Your task to perform on an android device: Play the last video I watched on Youtube Image 0: 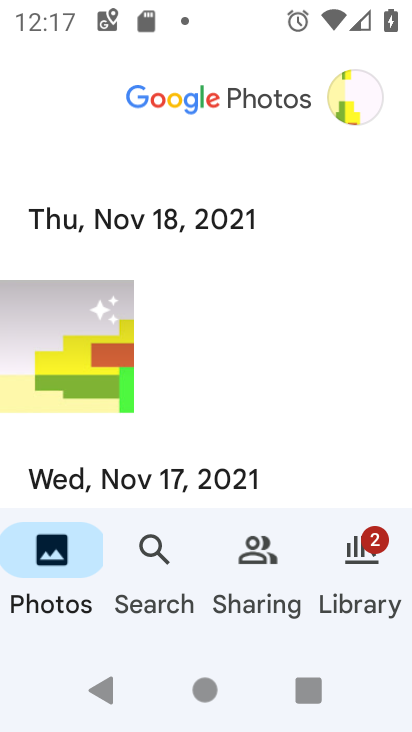
Step 0: press home button
Your task to perform on an android device: Play the last video I watched on Youtube Image 1: 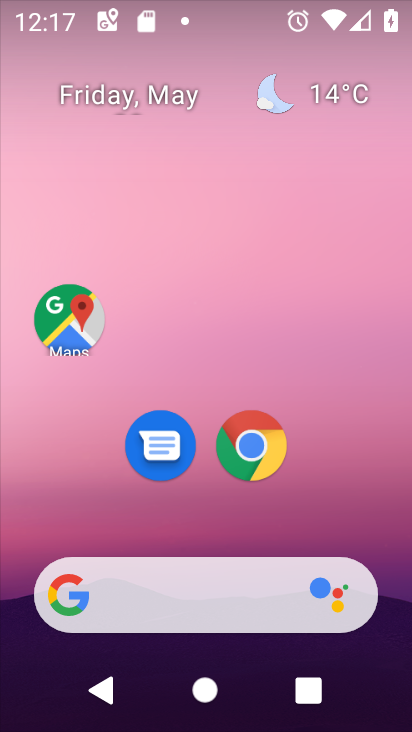
Step 1: drag from (256, 521) to (236, 222)
Your task to perform on an android device: Play the last video I watched on Youtube Image 2: 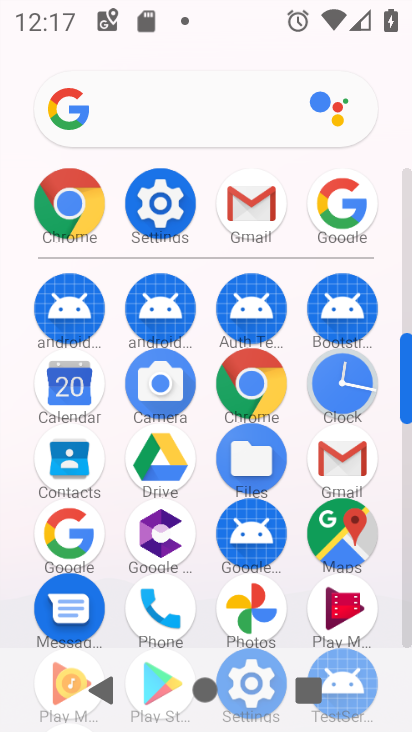
Step 2: drag from (219, 257) to (202, 102)
Your task to perform on an android device: Play the last video I watched on Youtube Image 3: 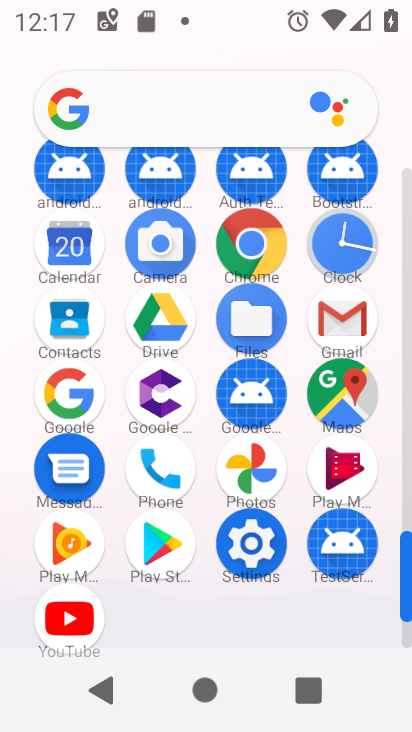
Step 3: click (82, 609)
Your task to perform on an android device: Play the last video I watched on Youtube Image 4: 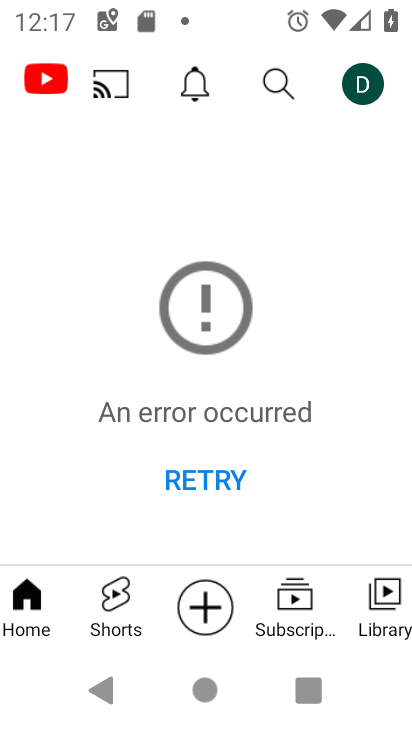
Step 4: click (211, 494)
Your task to perform on an android device: Play the last video I watched on Youtube Image 5: 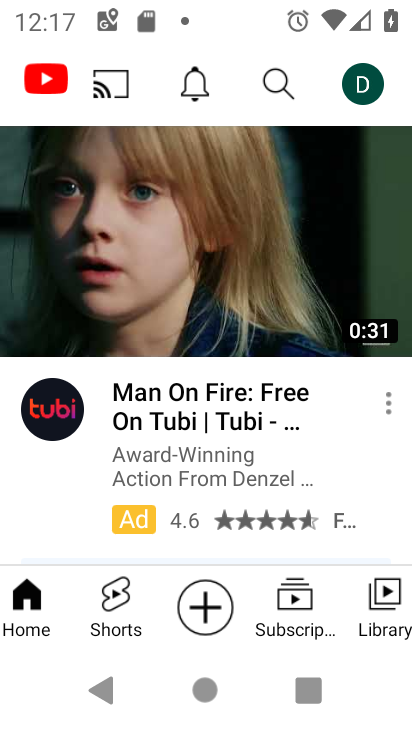
Step 5: click (360, 610)
Your task to perform on an android device: Play the last video I watched on Youtube Image 6: 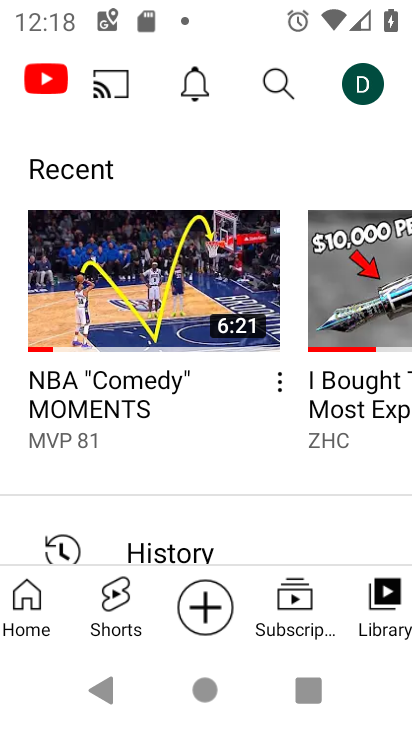
Step 6: click (208, 339)
Your task to perform on an android device: Play the last video I watched on Youtube Image 7: 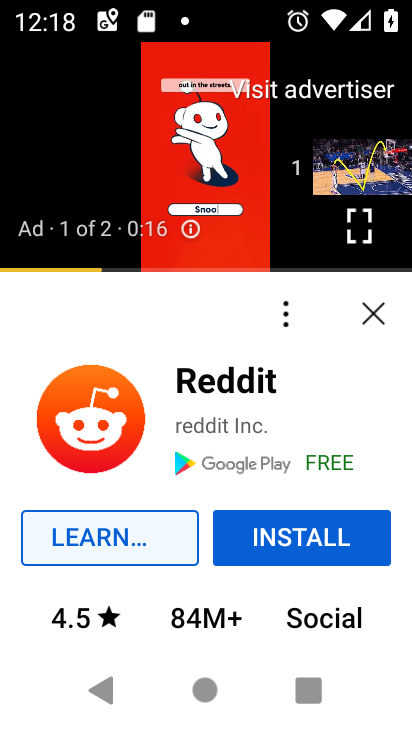
Step 7: task complete